Your task to perform on an android device: change your default location settings in chrome Image 0: 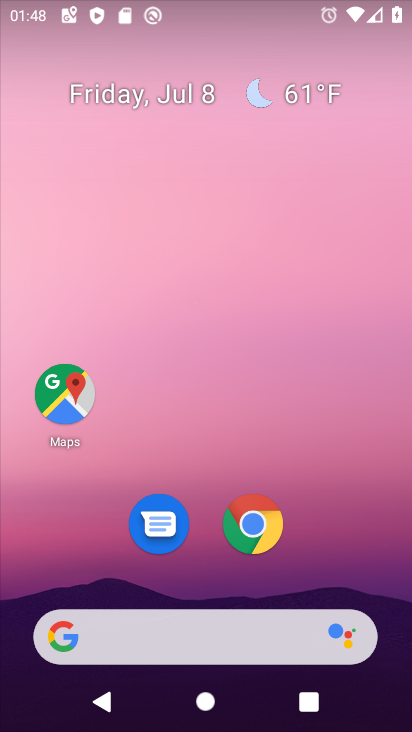
Step 0: click (270, 515)
Your task to perform on an android device: change your default location settings in chrome Image 1: 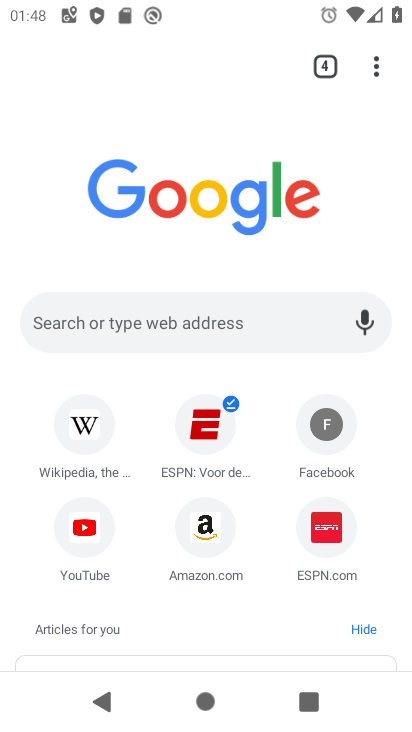
Step 1: click (373, 62)
Your task to perform on an android device: change your default location settings in chrome Image 2: 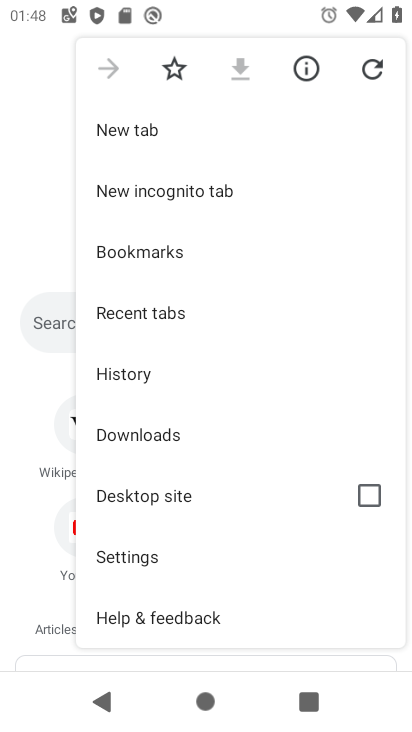
Step 2: click (158, 559)
Your task to perform on an android device: change your default location settings in chrome Image 3: 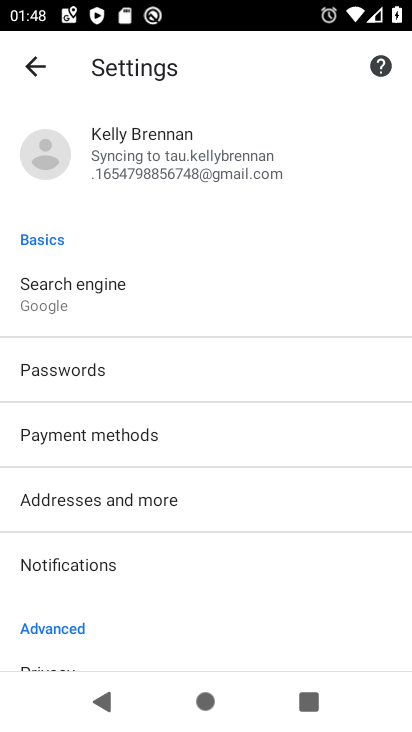
Step 3: drag from (193, 600) to (242, 208)
Your task to perform on an android device: change your default location settings in chrome Image 4: 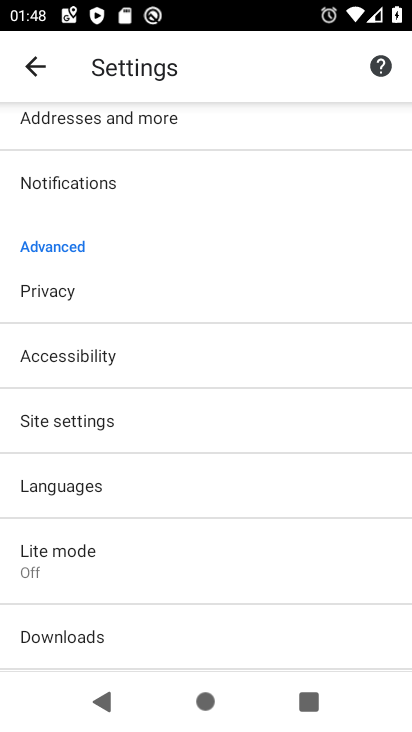
Step 4: click (111, 410)
Your task to perform on an android device: change your default location settings in chrome Image 5: 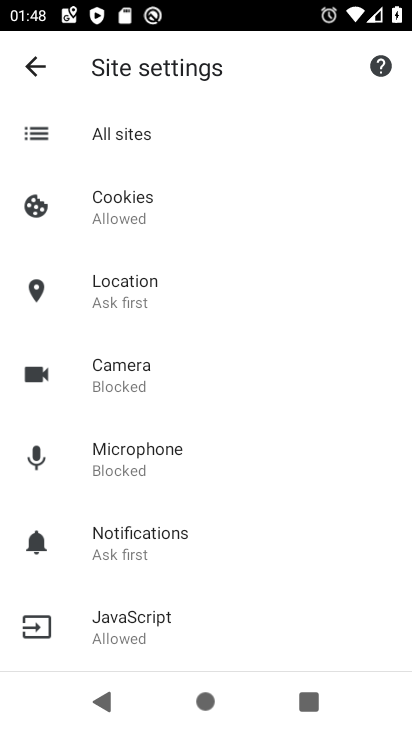
Step 5: click (132, 282)
Your task to perform on an android device: change your default location settings in chrome Image 6: 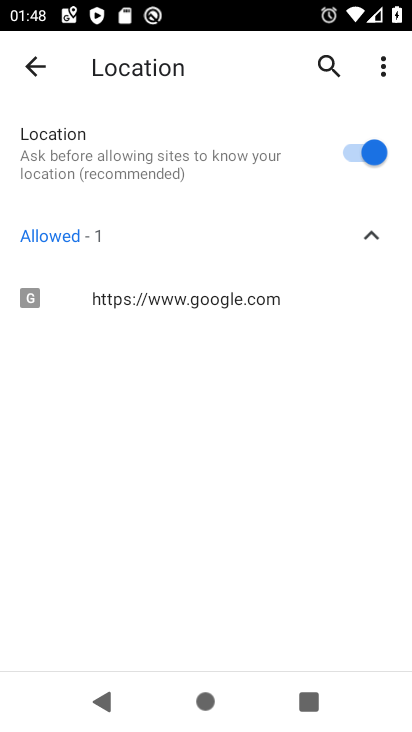
Step 6: click (356, 155)
Your task to perform on an android device: change your default location settings in chrome Image 7: 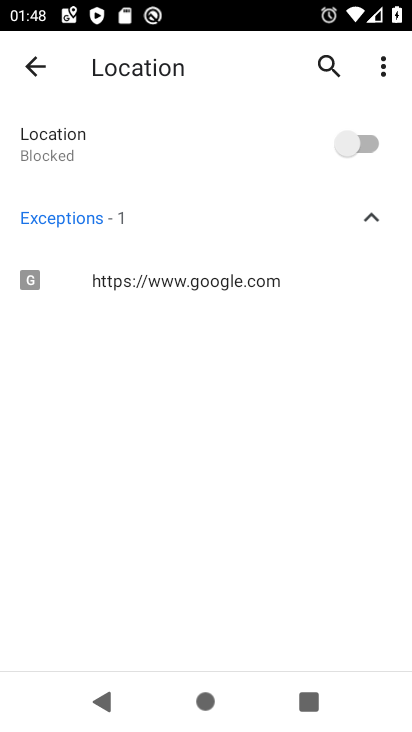
Step 7: task complete